Your task to perform on an android device: open wifi settings Image 0: 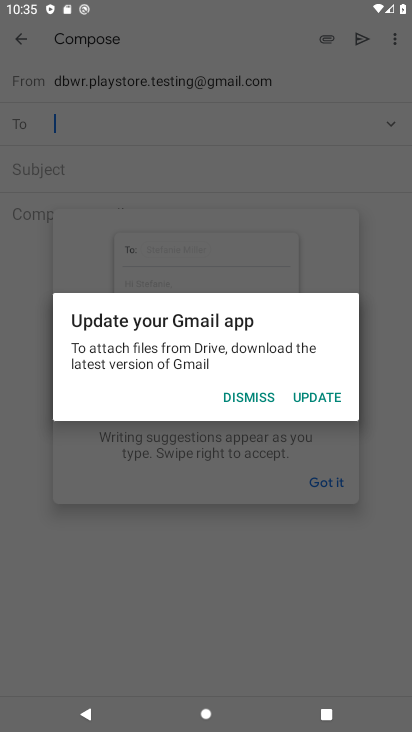
Step 0: press home button
Your task to perform on an android device: open wifi settings Image 1: 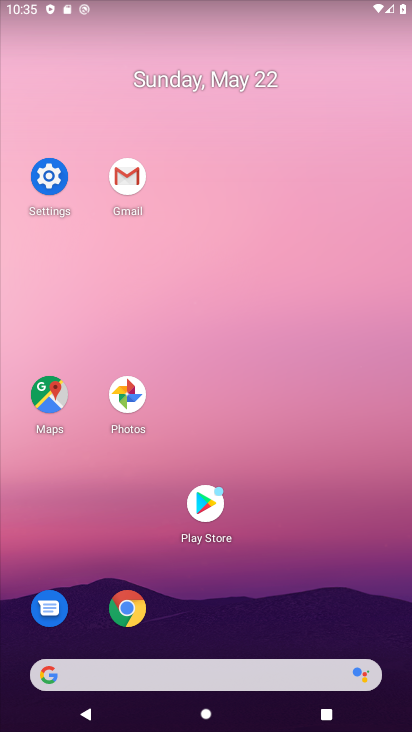
Step 1: click (55, 181)
Your task to perform on an android device: open wifi settings Image 2: 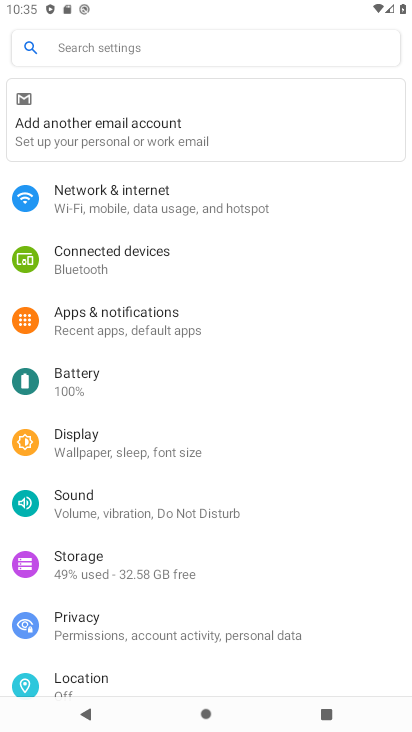
Step 2: click (161, 218)
Your task to perform on an android device: open wifi settings Image 3: 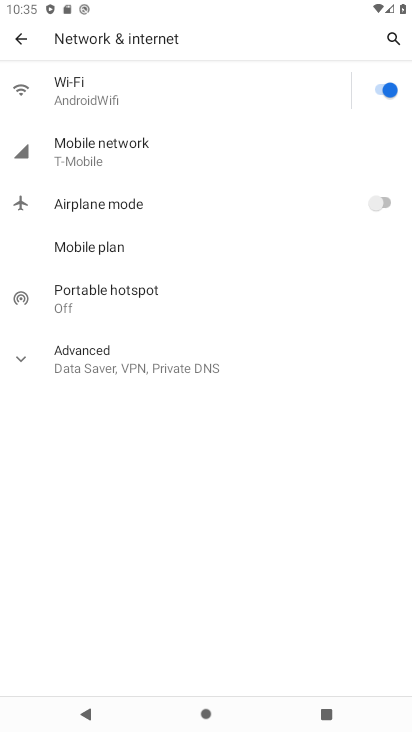
Step 3: click (144, 99)
Your task to perform on an android device: open wifi settings Image 4: 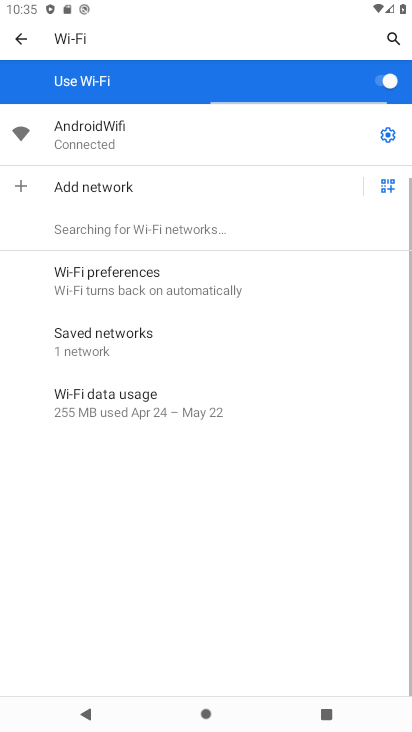
Step 4: click (392, 137)
Your task to perform on an android device: open wifi settings Image 5: 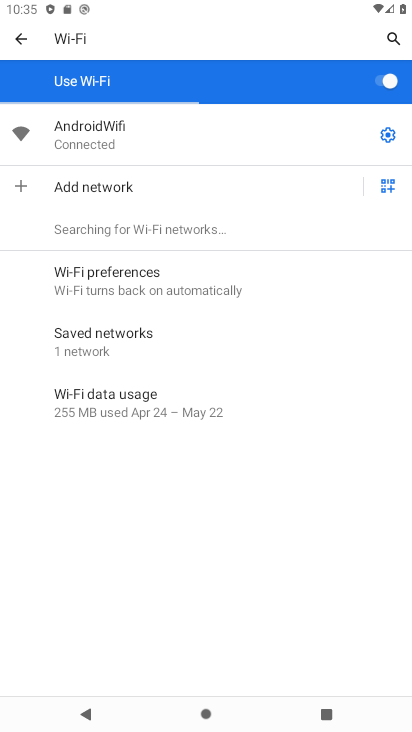
Step 5: click (381, 132)
Your task to perform on an android device: open wifi settings Image 6: 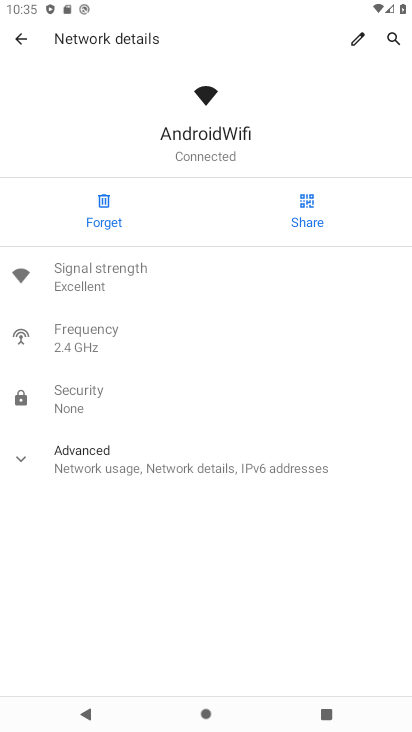
Step 6: task complete